Your task to perform on an android device: Open calendar and show me the first week of next month Image 0: 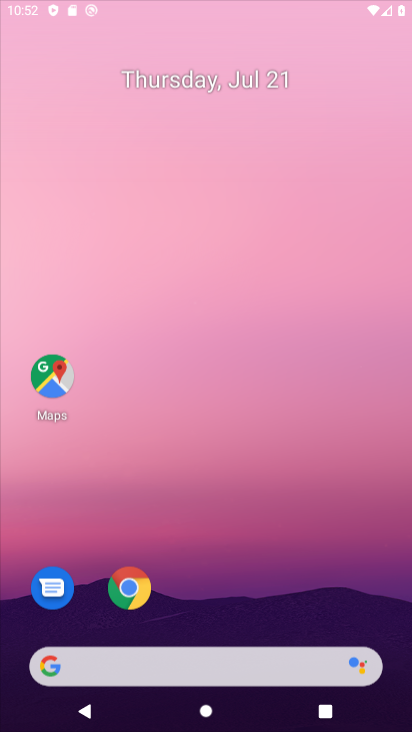
Step 0: press home button
Your task to perform on an android device: Open calendar and show me the first week of next month Image 1: 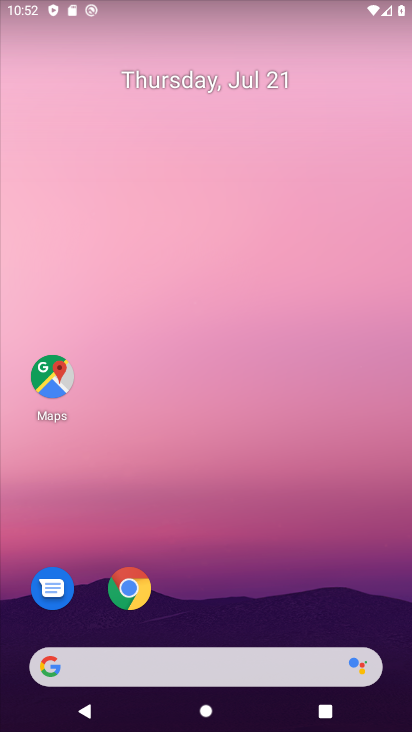
Step 1: drag from (208, 638) to (263, 41)
Your task to perform on an android device: Open calendar and show me the first week of next month Image 2: 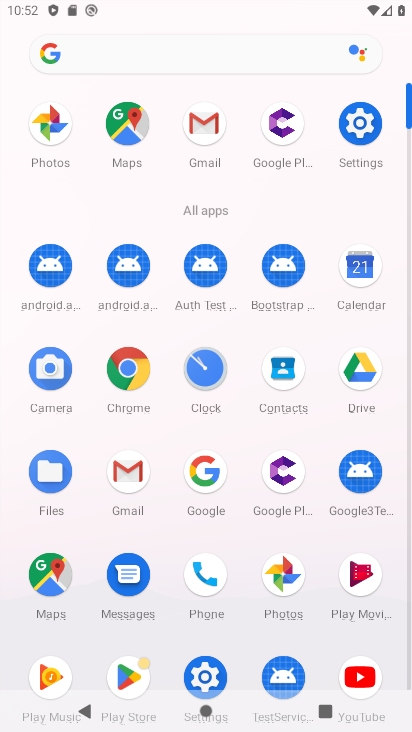
Step 2: click (359, 260)
Your task to perform on an android device: Open calendar and show me the first week of next month Image 3: 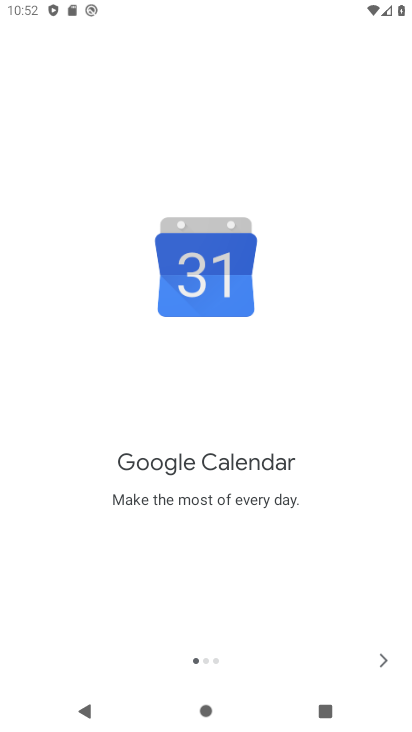
Step 3: click (376, 657)
Your task to perform on an android device: Open calendar and show me the first week of next month Image 4: 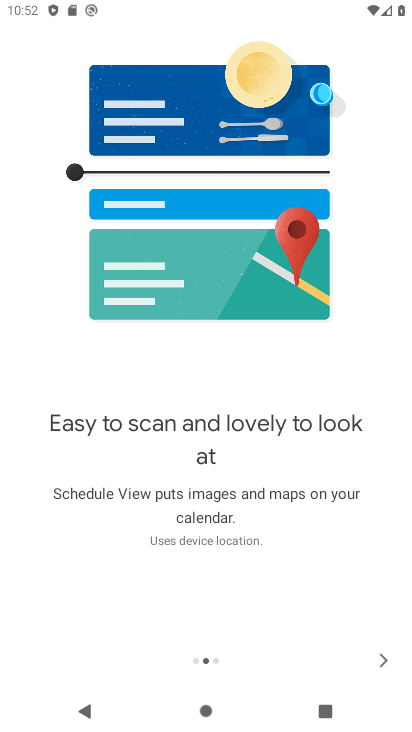
Step 4: click (377, 654)
Your task to perform on an android device: Open calendar and show me the first week of next month Image 5: 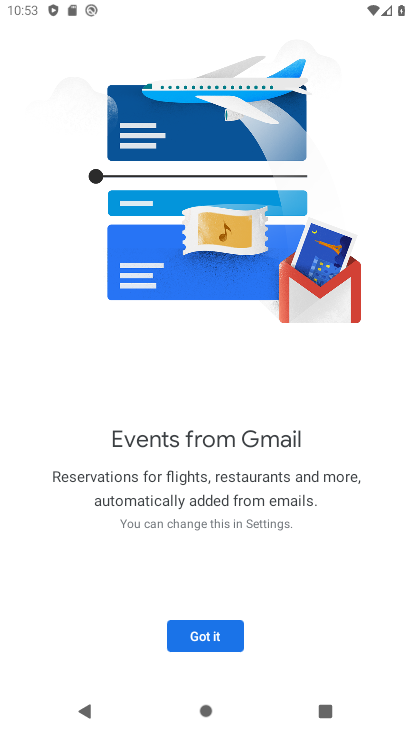
Step 5: click (205, 626)
Your task to perform on an android device: Open calendar and show me the first week of next month Image 6: 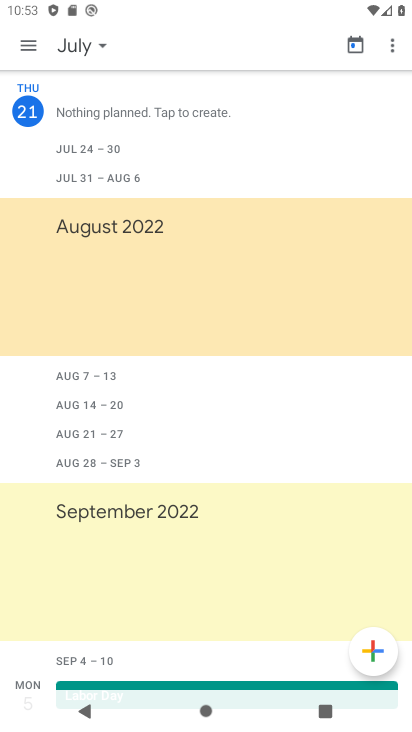
Step 6: click (106, 41)
Your task to perform on an android device: Open calendar and show me the first week of next month Image 7: 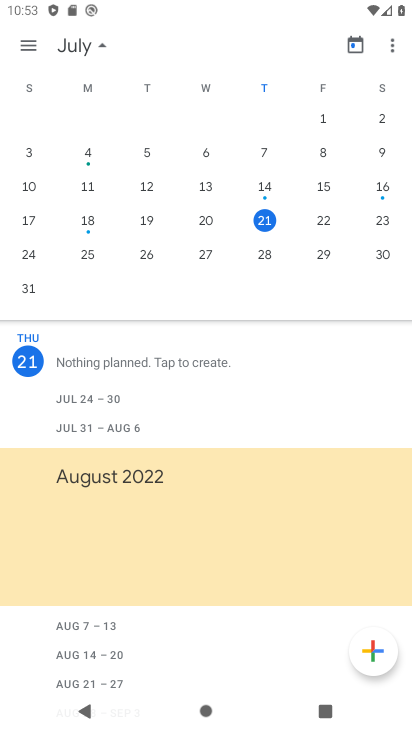
Step 7: drag from (375, 201) to (30, 195)
Your task to perform on an android device: Open calendar and show me the first week of next month Image 8: 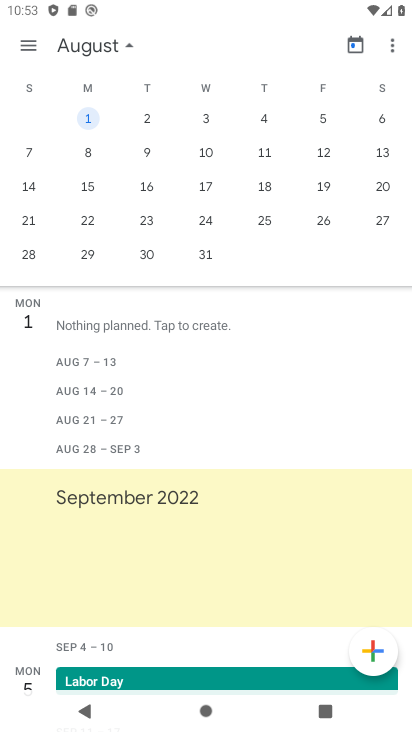
Step 8: click (33, 51)
Your task to perform on an android device: Open calendar and show me the first week of next month Image 9: 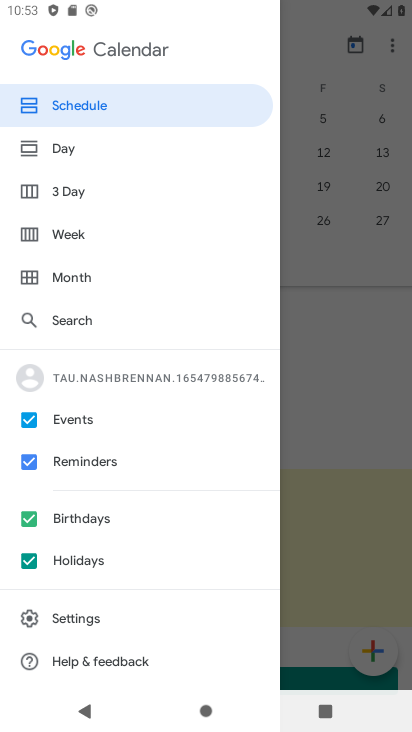
Step 9: click (65, 232)
Your task to perform on an android device: Open calendar and show me the first week of next month Image 10: 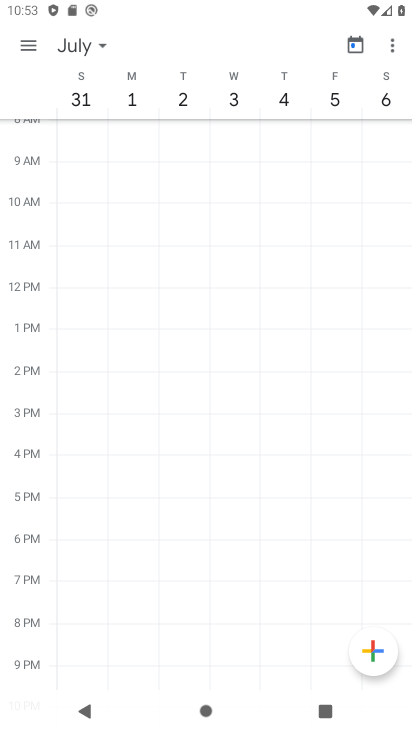
Step 10: click (130, 98)
Your task to perform on an android device: Open calendar and show me the first week of next month Image 11: 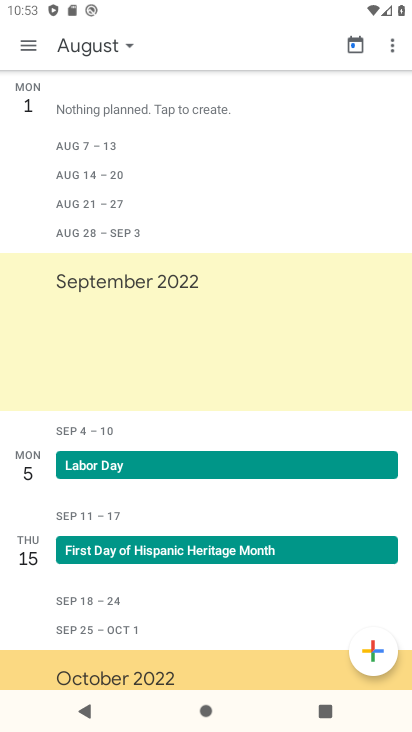
Step 11: task complete